Your task to perform on an android device: Open the phone app and click the voicemail tab. Image 0: 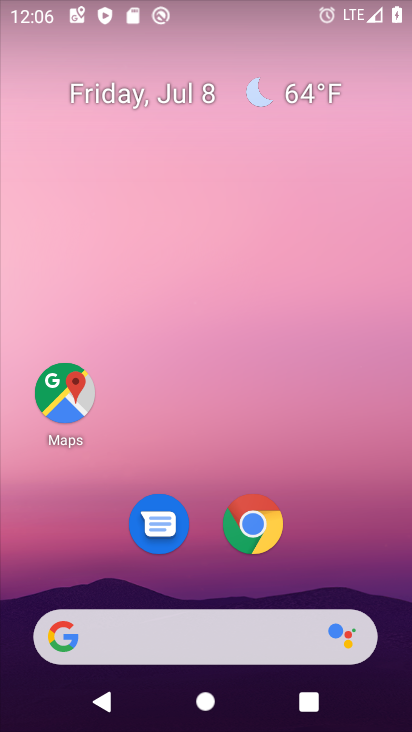
Step 0: drag from (277, 448) to (260, 19)
Your task to perform on an android device: Open the phone app and click the voicemail tab. Image 1: 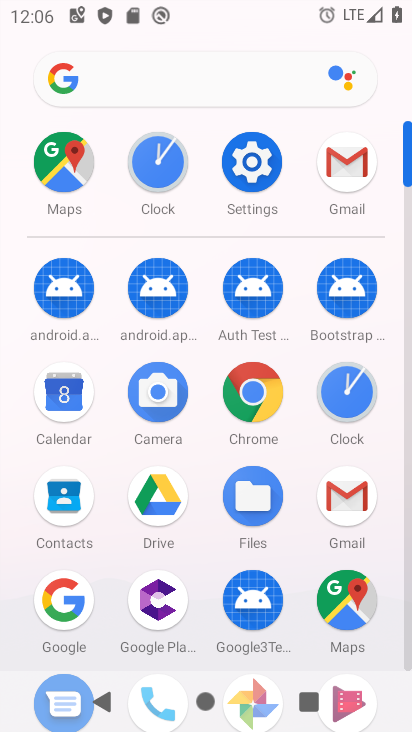
Step 1: drag from (208, 550) to (192, 376)
Your task to perform on an android device: Open the phone app and click the voicemail tab. Image 2: 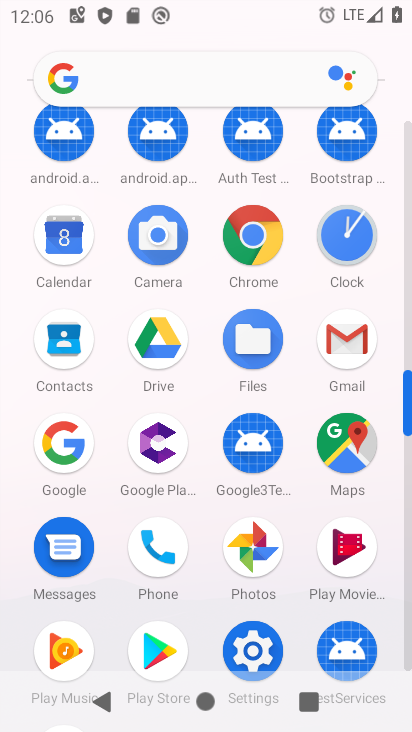
Step 2: click (165, 541)
Your task to perform on an android device: Open the phone app and click the voicemail tab. Image 3: 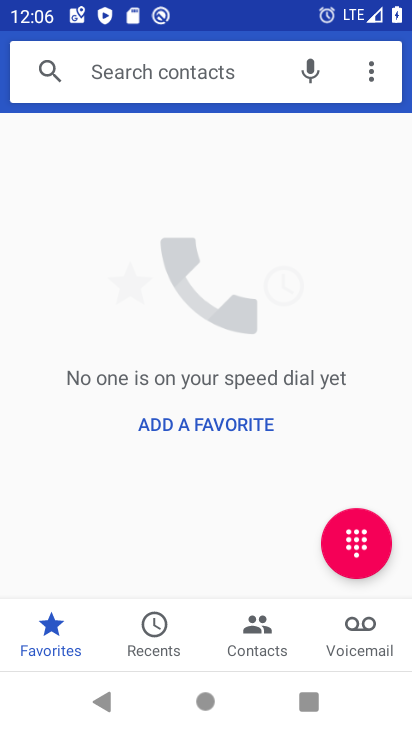
Step 3: click (364, 627)
Your task to perform on an android device: Open the phone app and click the voicemail tab. Image 4: 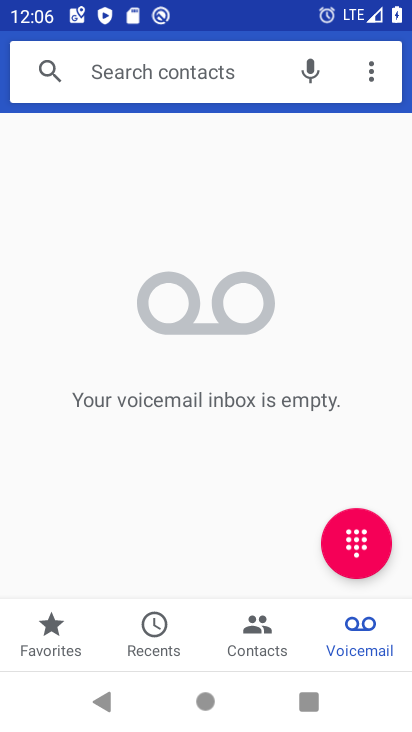
Step 4: task complete